Your task to perform on an android device: Go to CNN.com Image 0: 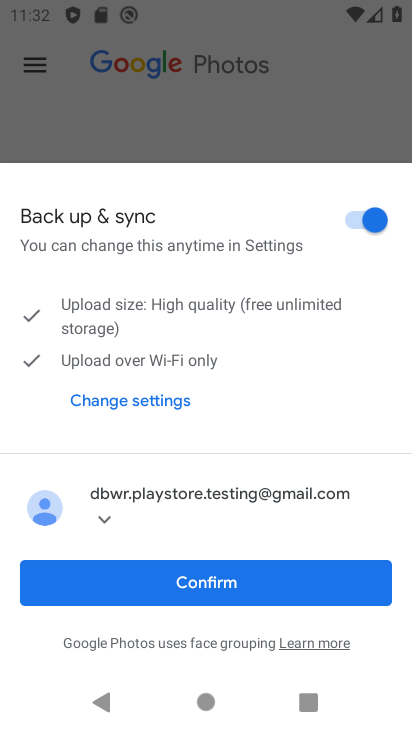
Step 0: press home button
Your task to perform on an android device: Go to CNN.com Image 1: 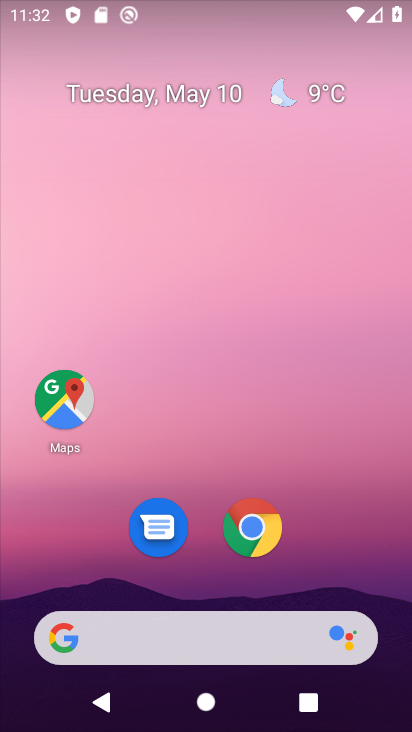
Step 1: click (253, 530)
Your task to perform on an android device: Go to CNN.com Image 2: 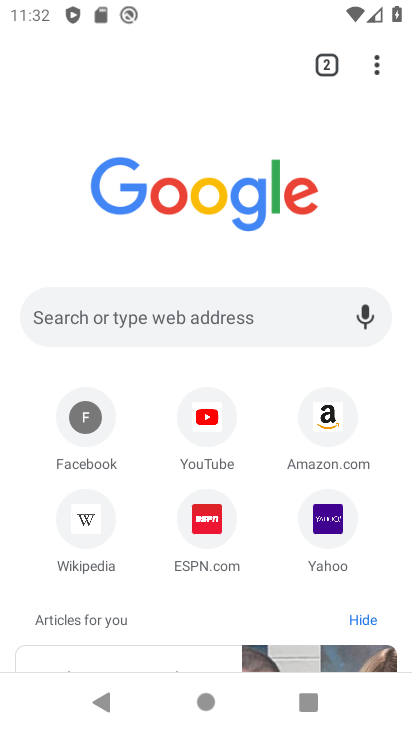
Step 2: click (176, 310)
Your task to perform on an android device: Go to CNN.com Image 3: 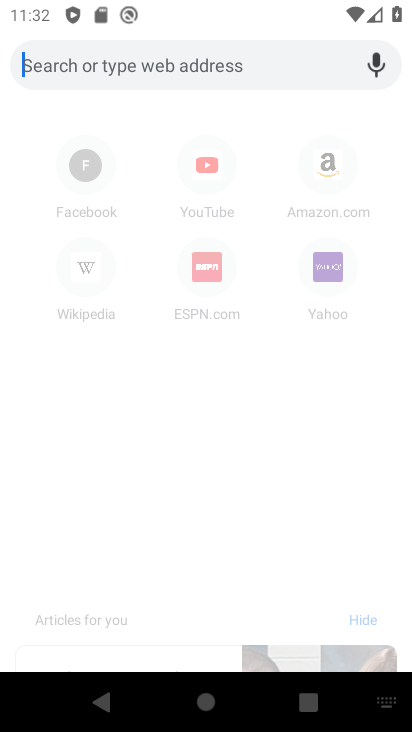
Step 3: type "CNN.com"
Your task to perform on an android device: Go to CNN.com Image 4: 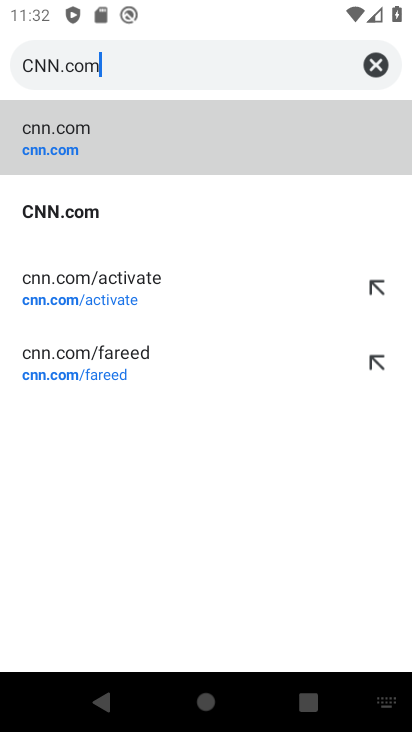
Step 4: click (77, 212)
Your task to perform on an android device: Go to CNN.com Image 5: 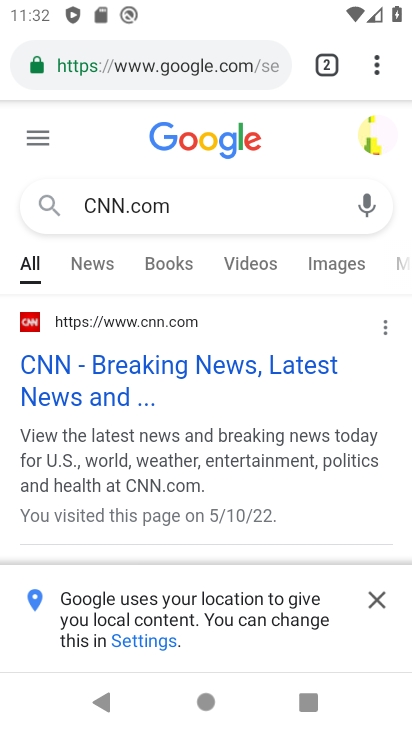
Step 5: click (212, 364)
Your task to perform on an android device: Go to CNN.com Image 6: 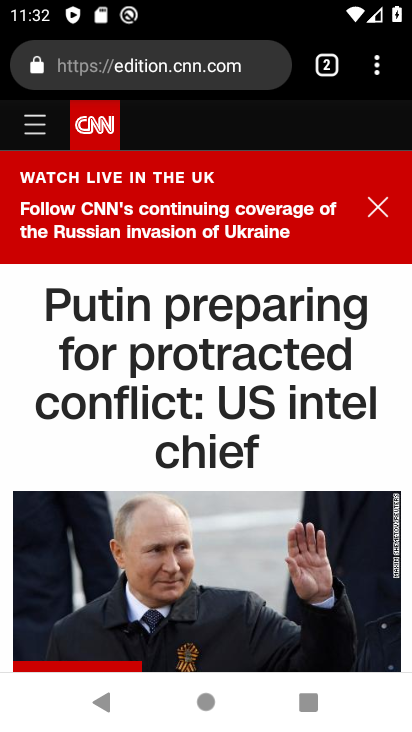
Step 6: task complete